Your task to perform on an android device: toggle improve location accuracy Image 0: 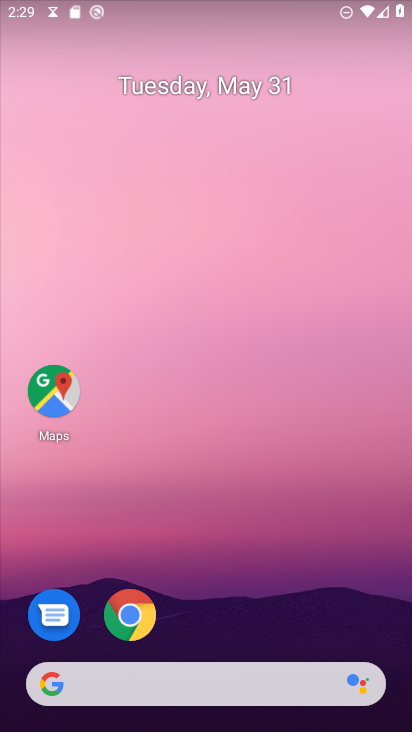
Step 0: drag from (216, 695) to (250, 19)
Your task to perform on an android device: toggle improve location accuracy Image 1: 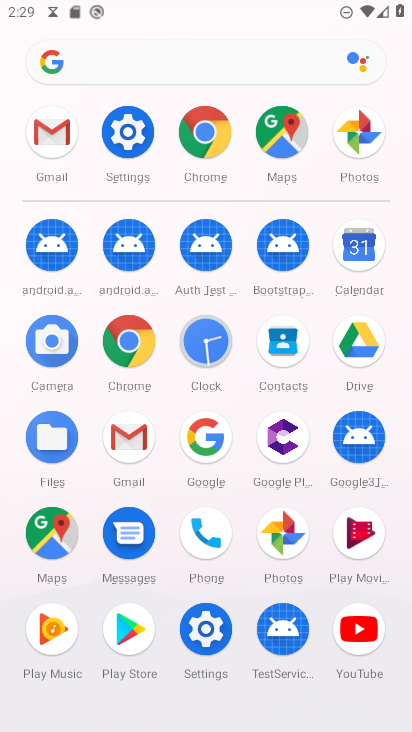
Step 1: click (138, 133)
Your task to perform on an android device: toggle improve location accuracy Image 2: 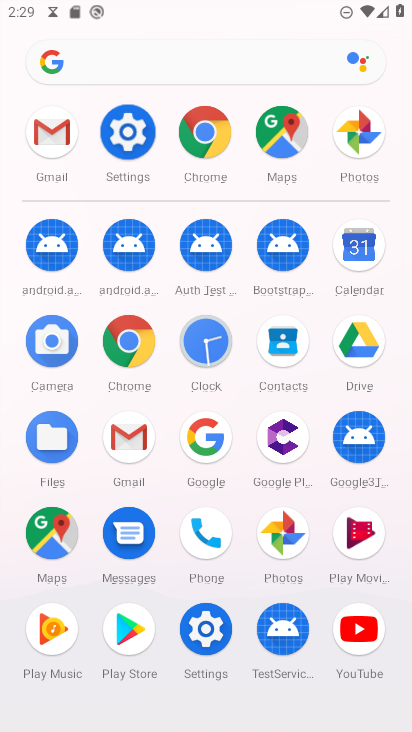
Step 2: click (138, 133)
Your task to perform on an android device: toggle improve location accuracy Image 3: 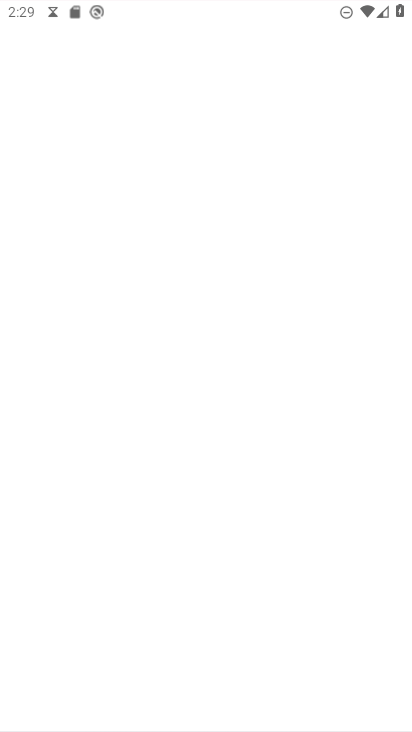
Step 3: click (138, 133)
Your task to perform on an android device: toggle improve location accuracy Image 4: 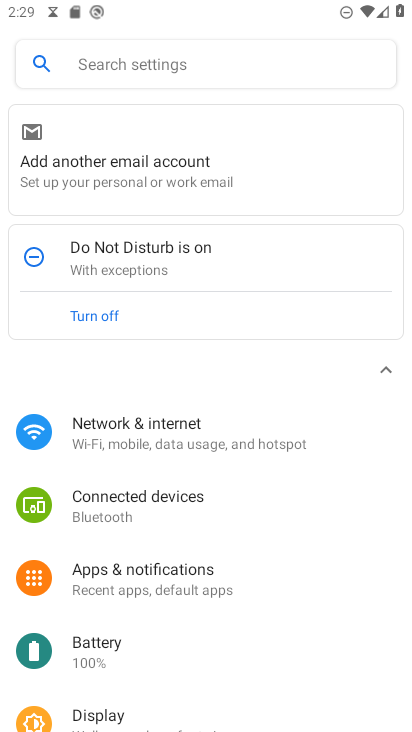
Step 4: drag from (136, 605) to (116, 335)
Your task to perform on an android device: toggle improve location accuracy Image 5: 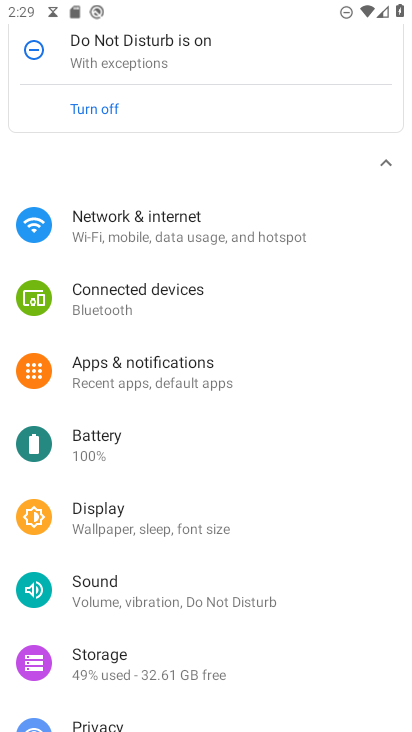
Step 5: drag from (157, 586) to (162, 477)
Your task to perform on an android device: toggle improve location accuracy Image 6: 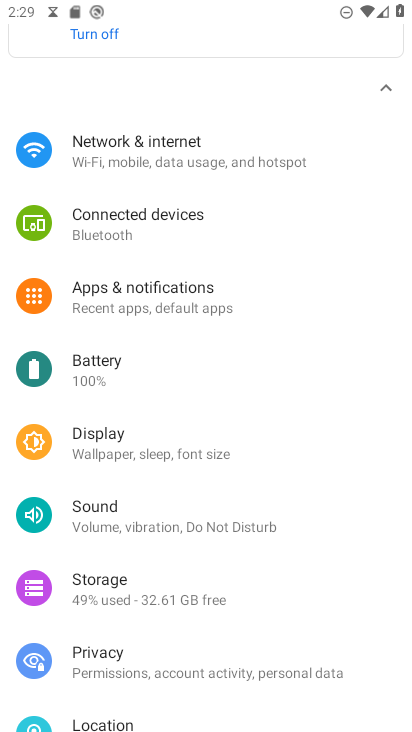
Step 6: drag from (125, 669) to (146, 399)
Your task to perform on an android device: toggle improve location accuracy Image 7: 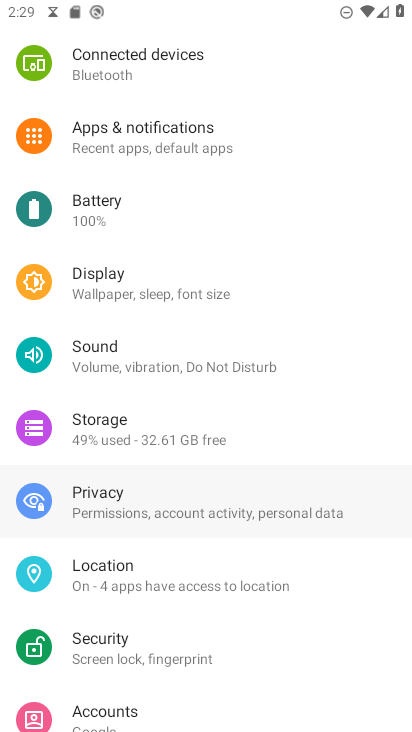
Step 7: drag from (158, 466) to (158, 312)
Your task to perform on an android device: toggle improve location accuracy Image 8: 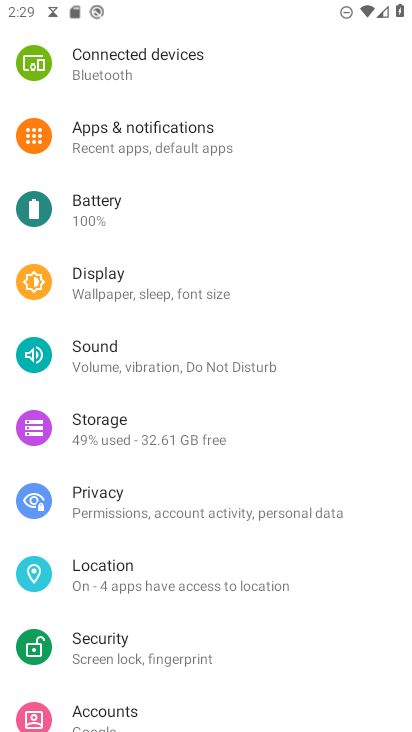
Step 8: click (119, 578)
Your task to perform on an android device: toggle improve location accuracy Image 9: 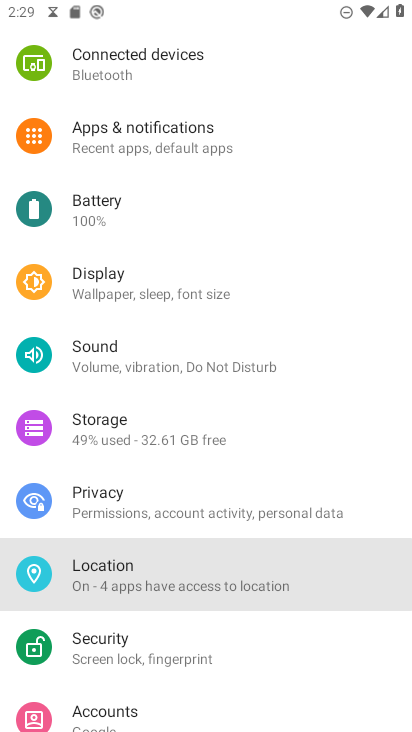
Step 9: click (119, 578)
Your task to perform on an android device: toggle improve location accuracy Image 10: 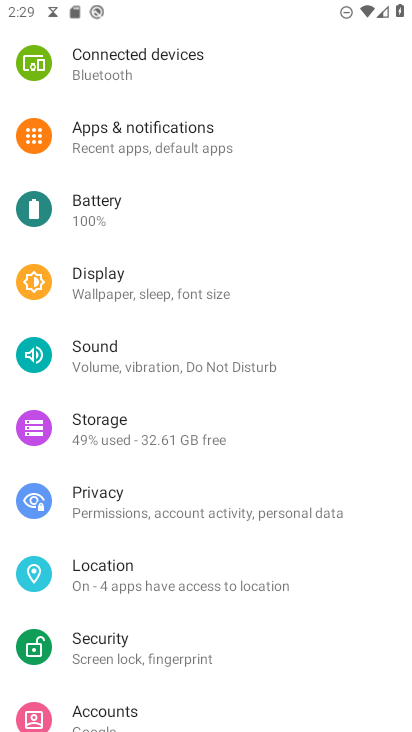
Step 10: click (119, 578)
Your task to perform on an android device: toggle improve location accuracy Image 11: 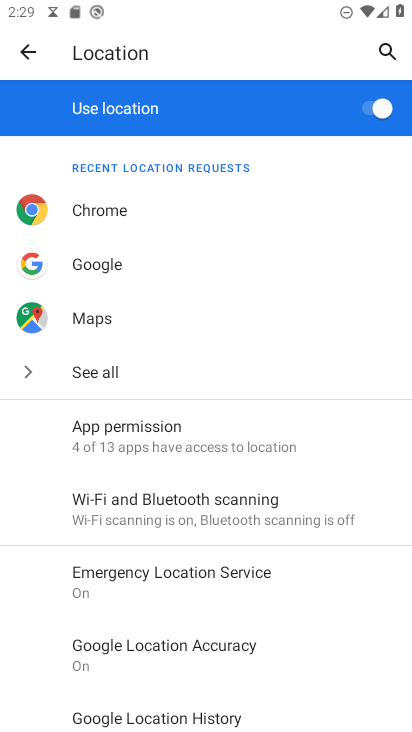
Step 11: click (180, 637)
Your task to perform on an android device: toggle improve location accuracy Image 12: 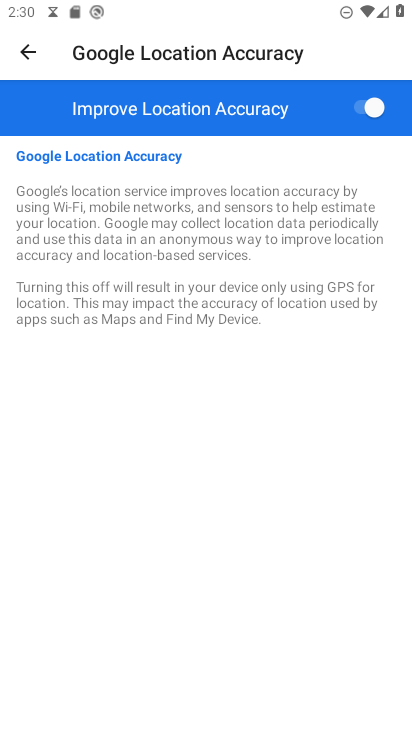
Step 12: task complete